Your task to perform on an android device: turn off priority inbox in the gmail app Image 0: 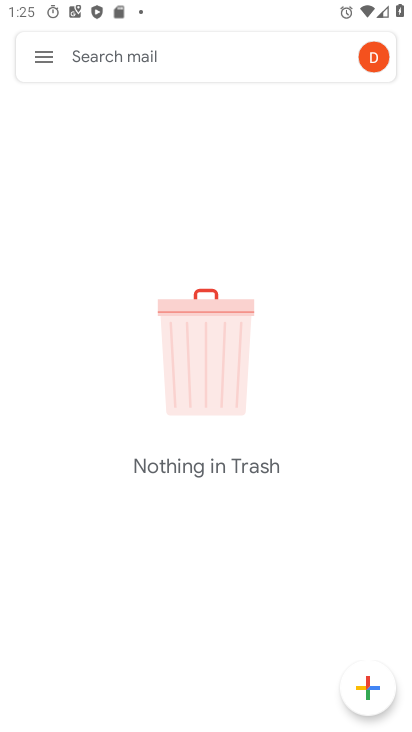
Step 0: click (33, 56)
Your task to perform on an android device: turn off priority inbox in the gmail app Image 1: 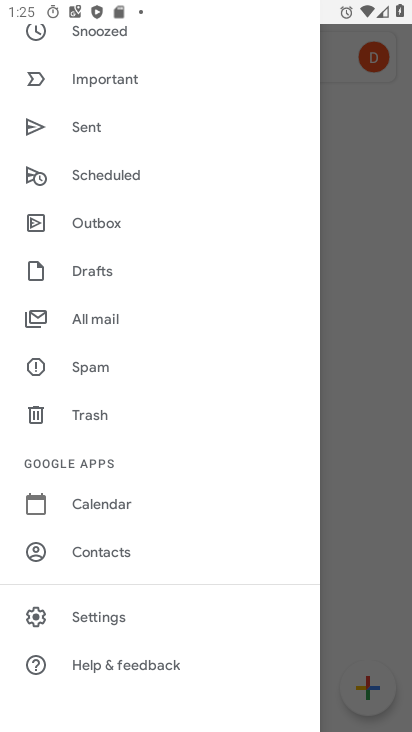
Step 1: click (114, 607)
Your task to perform on an android device: turn off priority inbox in the gmail app Image 2: 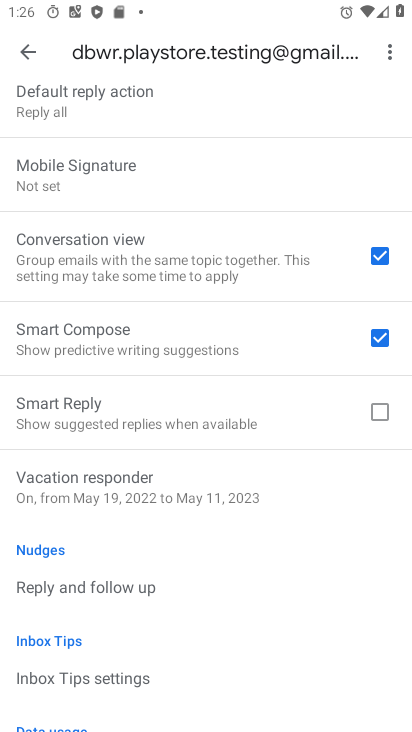
Step 2: task complete